Your task to perform on an android device: delete location history Image 0: 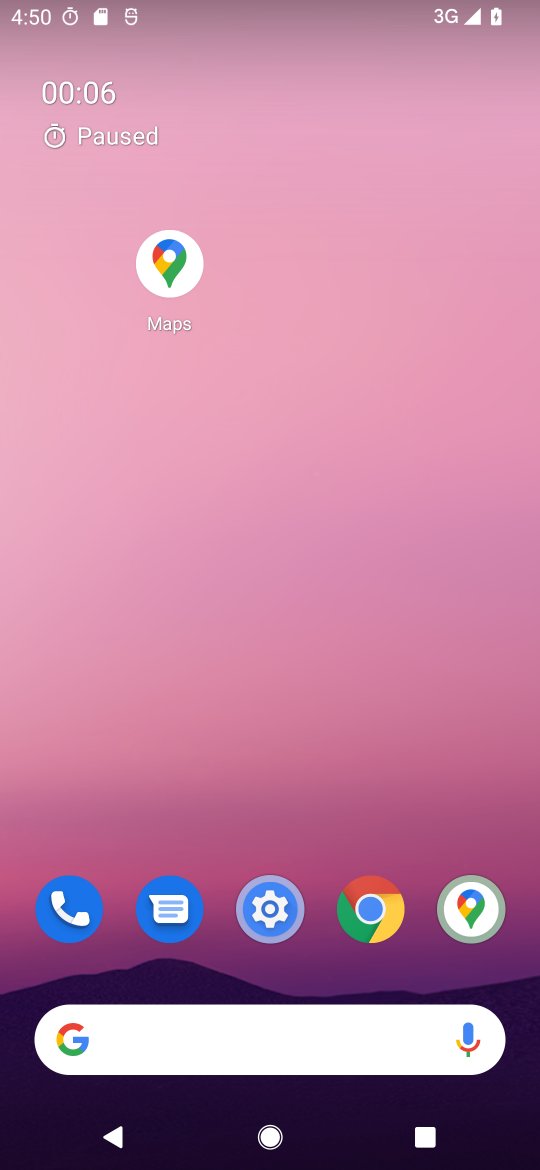
Step 0: click (272, 910)
Your task to perform on an android device: delete location history Image 1: 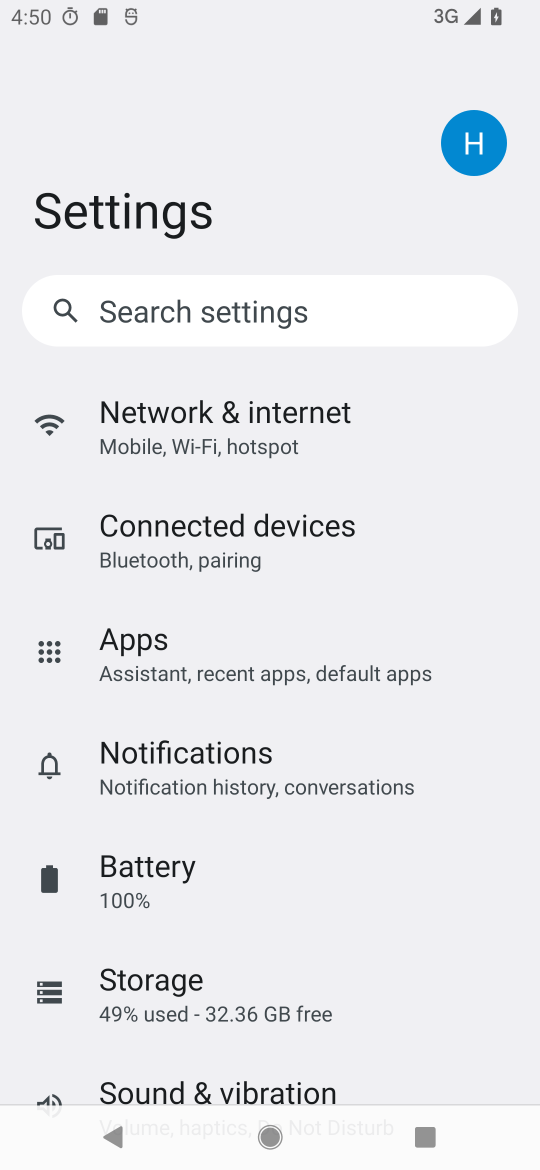
Step 1: drag from (311, 1036) to (331, 253)
Your task to perform on an android device: delete location history Image 2: 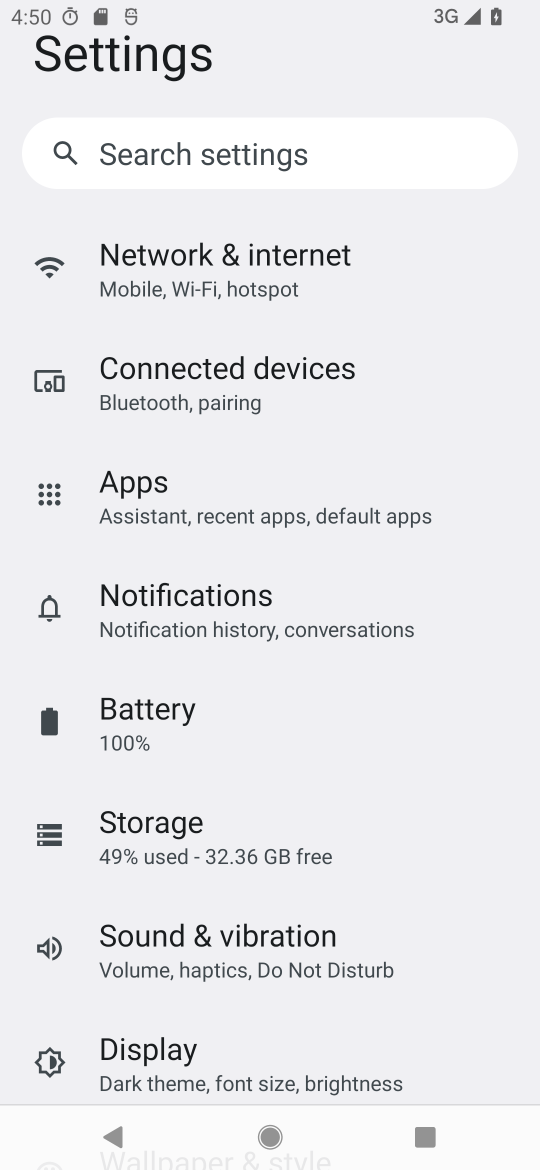
Step 2: drag from (226, 1003) to (218, 459)
Your task to perform on an android device: delete location history Image 3: 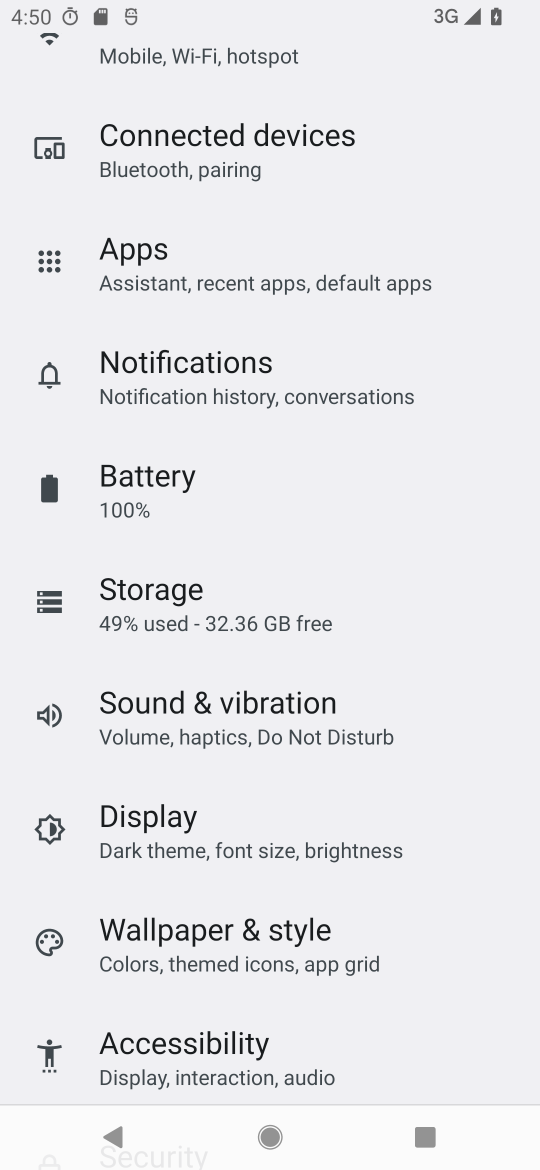
Step 3: drag from (183, 982) to (299, 348)
Your task to perform on an android device: delete location history Image 4: 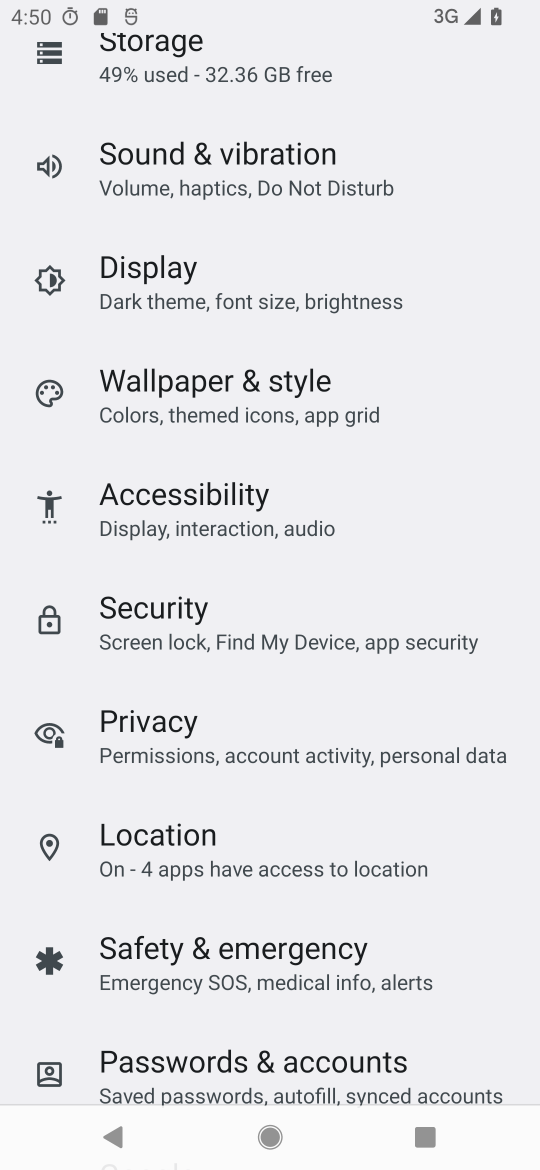
Step 4: click (176, 847)
Your task to perform on an android device: delete location history Image 5: 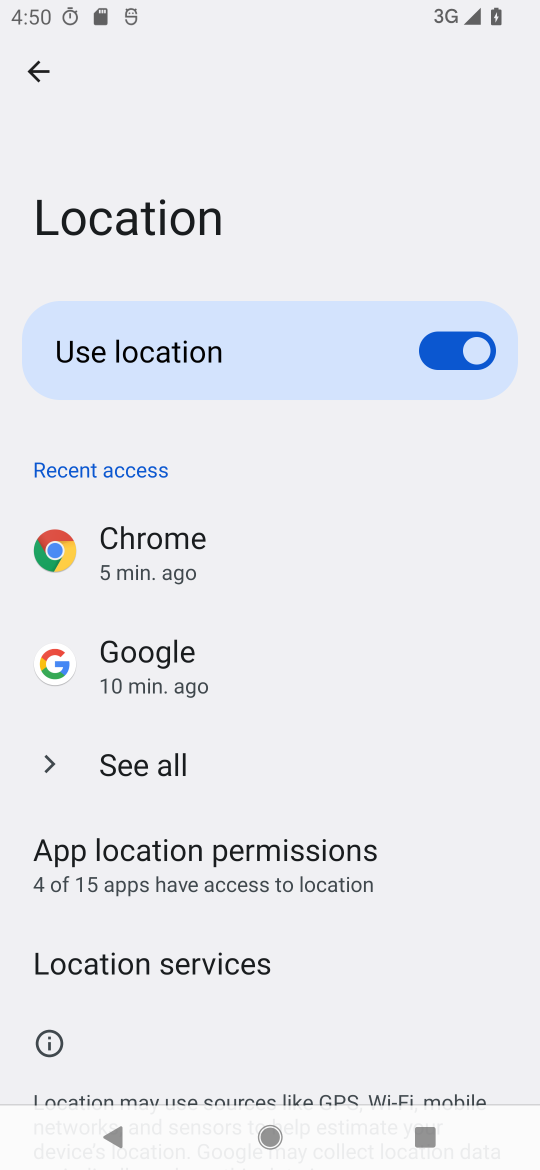
Step 5: drag from (160, 1010) to (320, 253)
Your task to perform on an android device: delete location history Image 6: 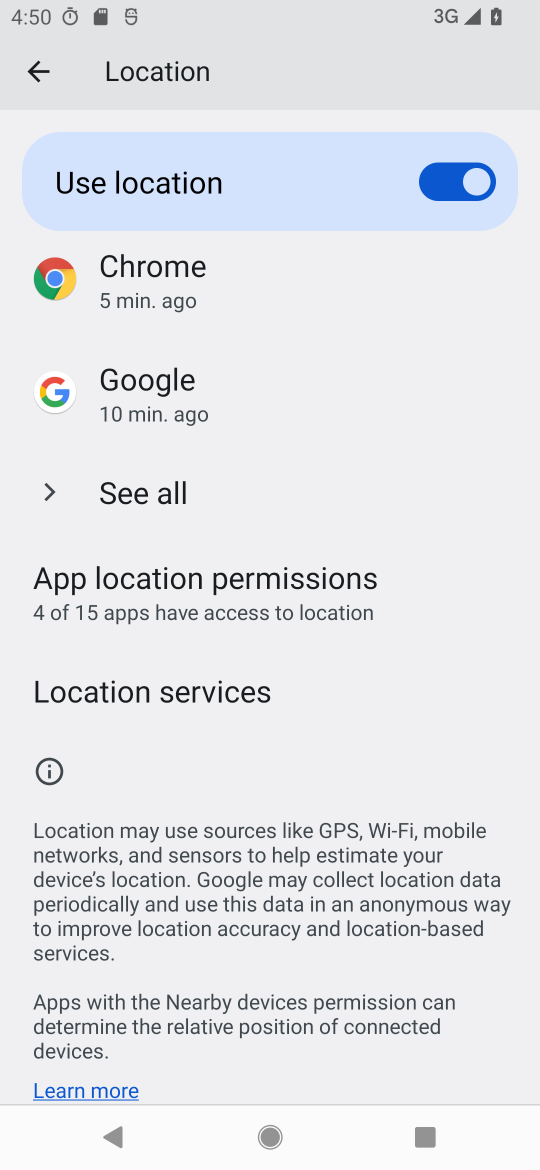
Step 6: click (146, 691)
Your task to perform on an android device: delete location history Image 7: 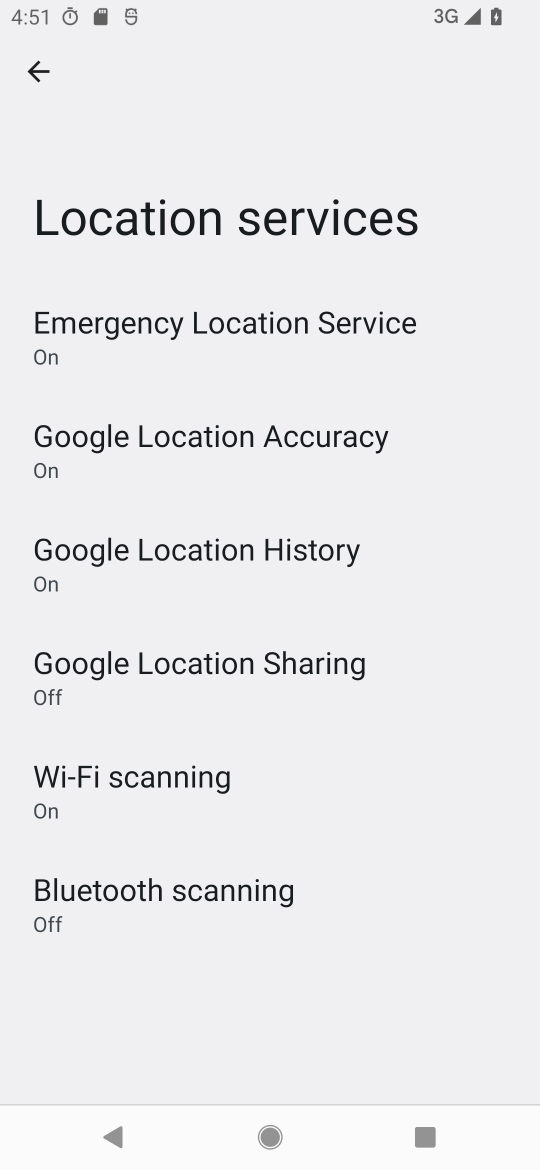
Step 7: click (241, 551)
Your task to perform on an android device: delete location history Image 8: 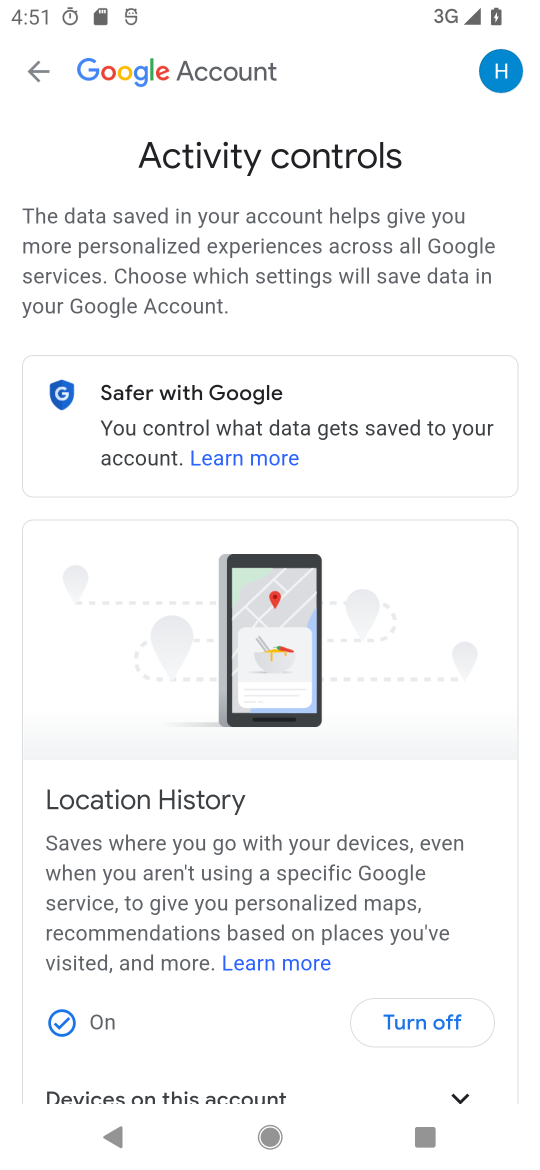
Step 8: drag from (376, 841) to (394, 403)
Your task to perform on an android device: delete location history Image 9: 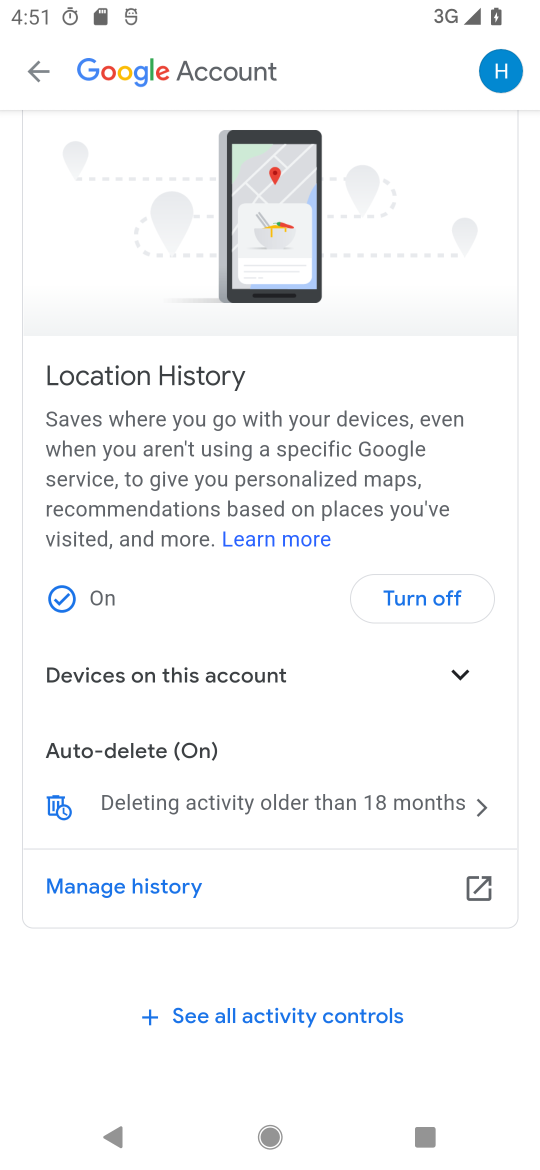
Step 9: click (148, 885)
Your task to perform on an android device: delete location history Image 10: 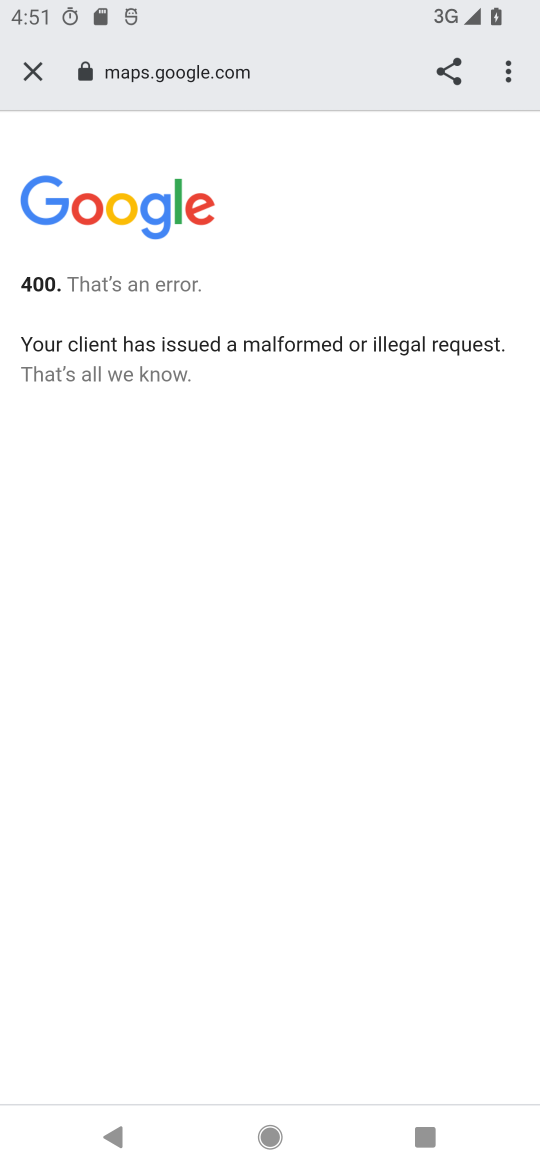
Step 10: task complete